Your task to perform on an android device: turn off improve location accuracy Image 0: 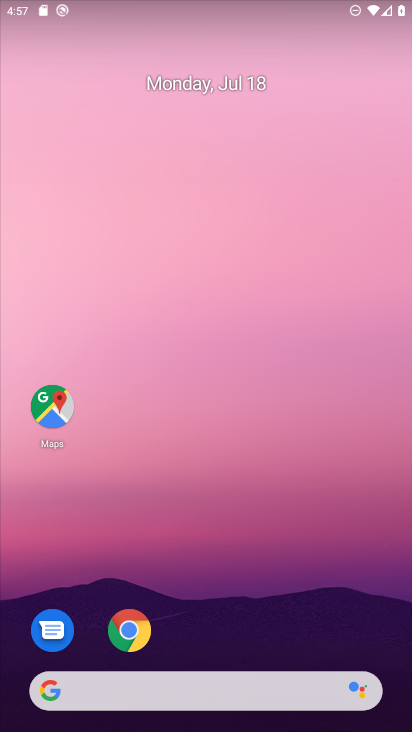
Step 0: drag from (228, 649) to (275, 180)
Your task to perform on an android device: turn off improve location accuracy Image 1: 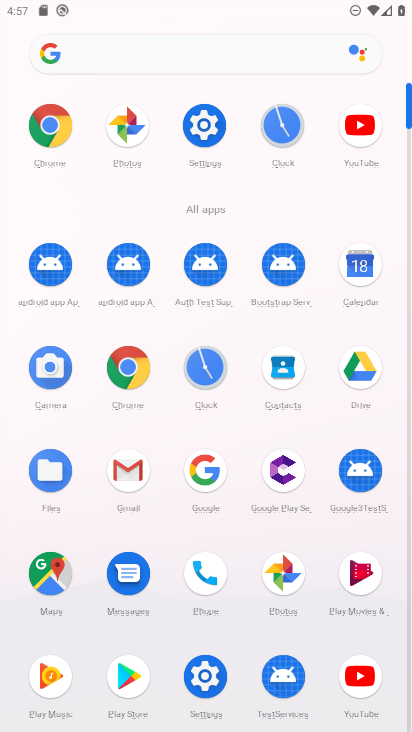
Step 1: click (204, 673)
Your task to perform on an android device: turn off improve location accuracy Image 2: 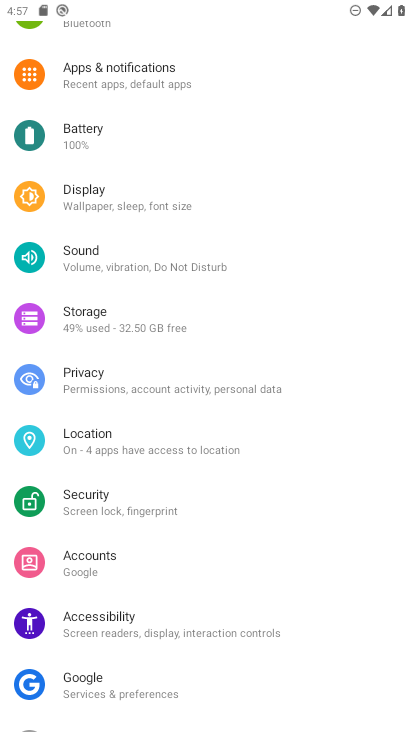
Step 2: click (128, 438)
Your task to perform on an android device: turn off improve location accuracy Image 3: 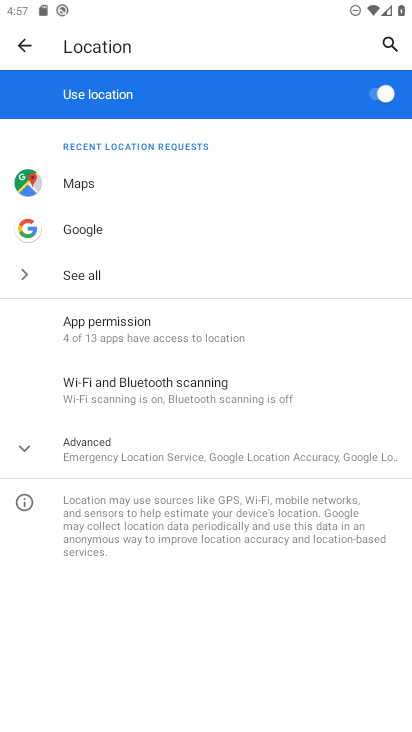
Step 3: click (47, 446)
Your task to perform on an android device: turn off improve location accuracy Image 4: 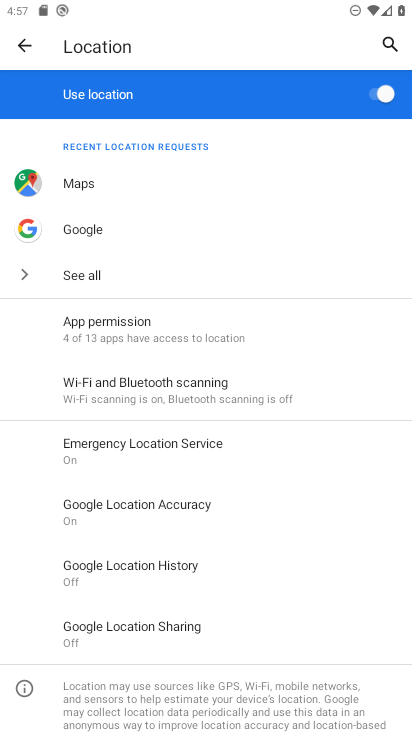
Step 4: click (145, 508)
Your task to perform on an android device: turn off improve location accuracy Image 5: 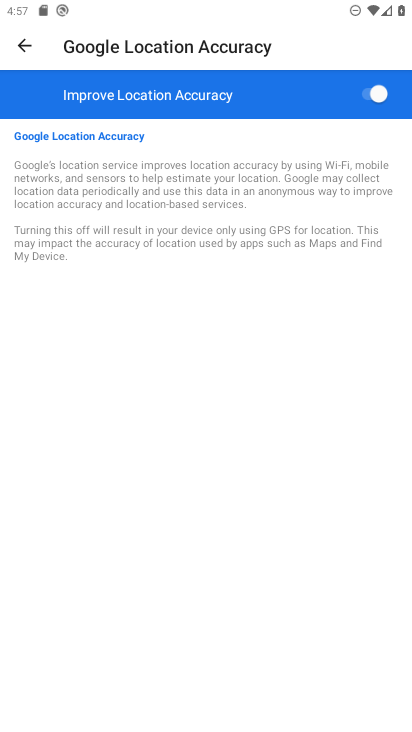
Step 5: click (367, 94)
Your task to perform on an android device: turn off improve location accuracy Image 6: 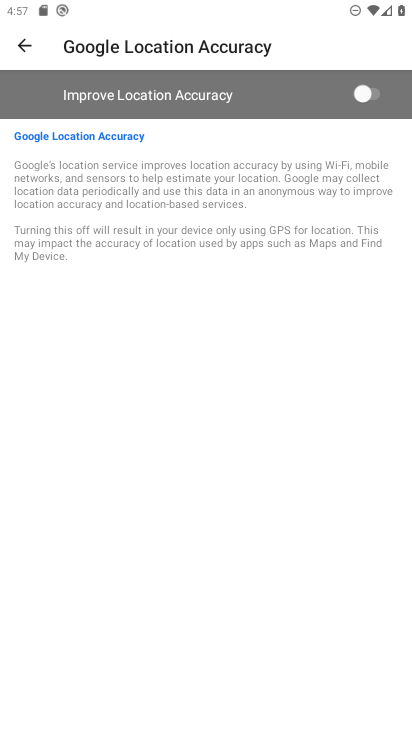
Step 6: task complete